Your task to perform on an android device: open device folders in google photos Image 0: 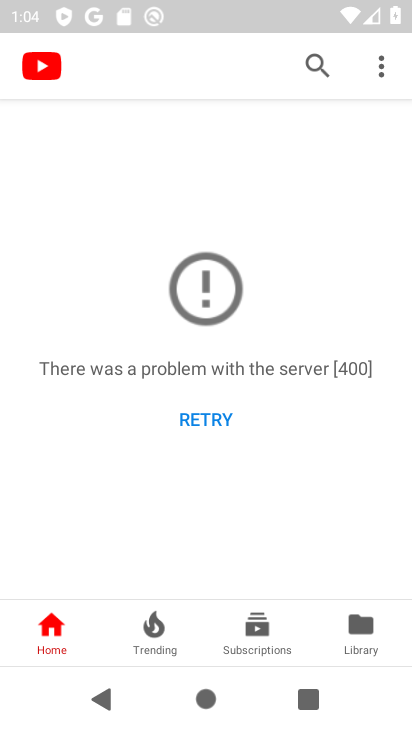
Step 0: press home button
Your task to perform on an android device: open device folders in google photos Image 1: 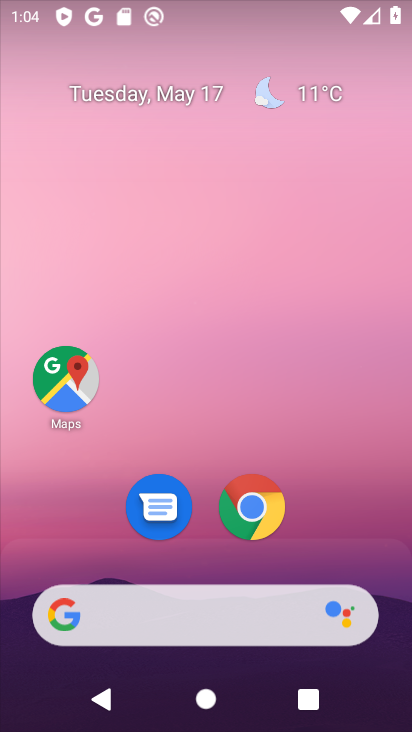
Step 1: drag from (203, 552) to (181, 113)
Your task to perform on an android device: open device folders in google photos Image 2: 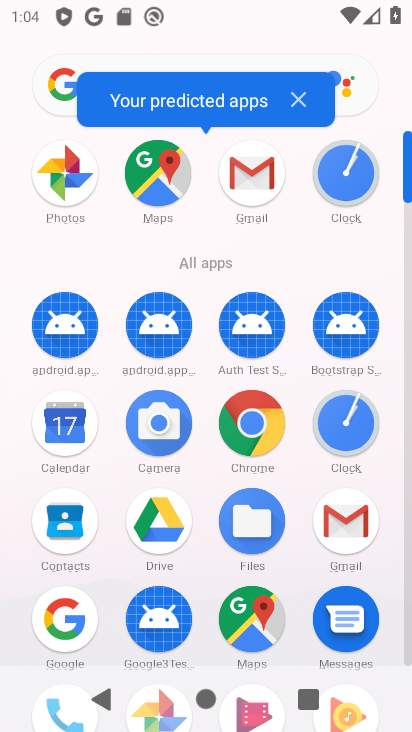
Step 2: drag from (107, 562) to (121, 295)
Your task to perform on an android device: open device folders in google photos Image 3: 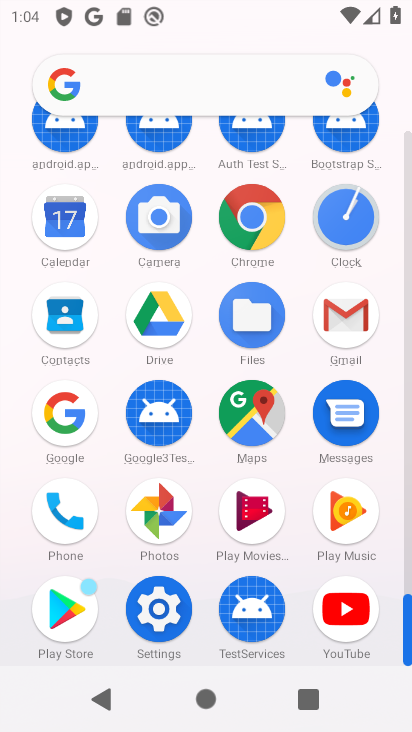
Step 3: click (158, 511)
Your task to perform on an android device: open device folders in google photos Image 4: 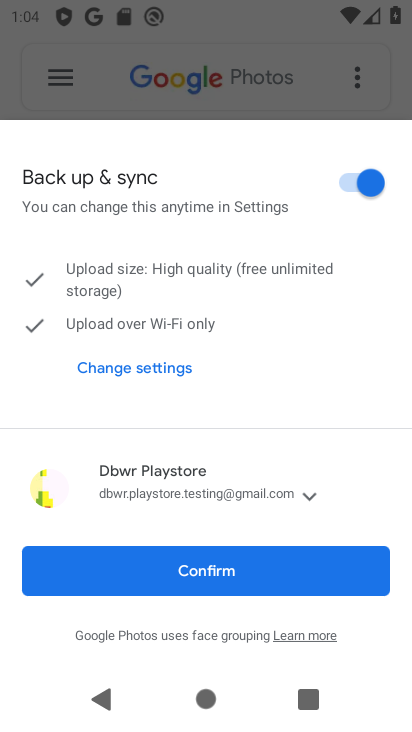
Step 4: click (224, 553)
Your task to perform on an android device: open device folders in google photos Image 5: 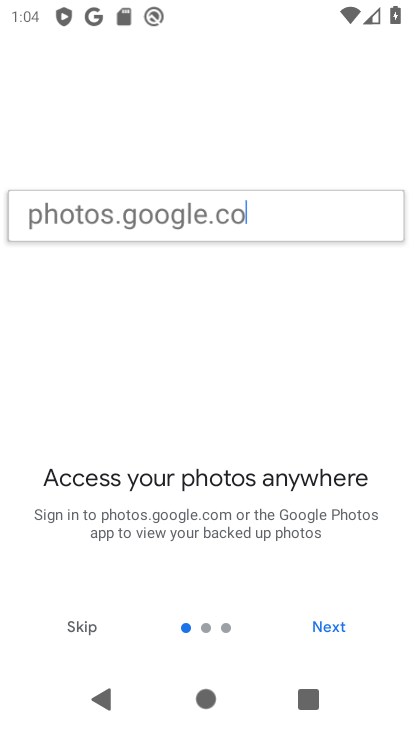
Step 5: click (320, 628)
Your task to perform on an android device: open device folders in google photos Image 6: 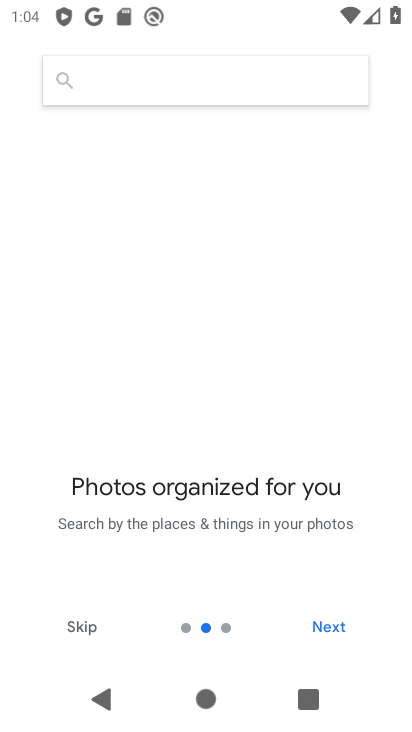
Step 6: click (320, 628)
Your task to perform on an android device: open device folders in google photos Image 7: 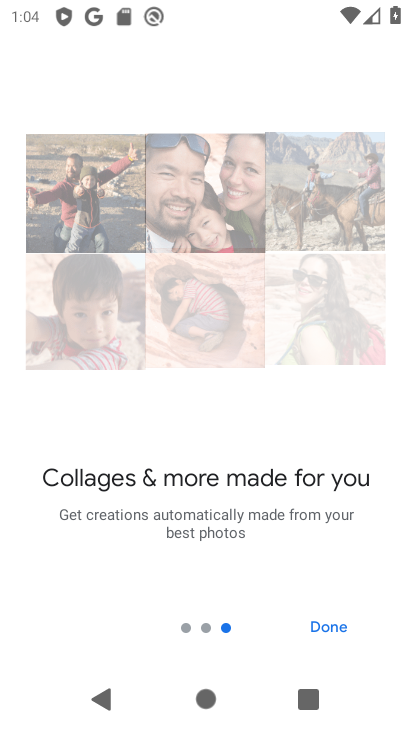
Step 7: click (320, 628)
Your task to perform on an android device: open device folders in google photos Image 8: 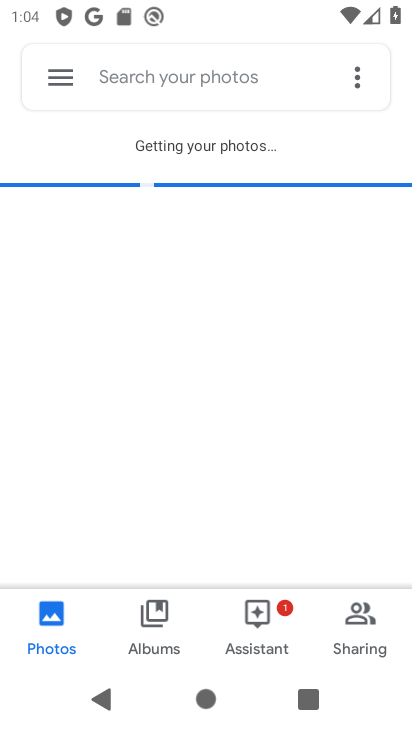
Step 8: drag from (320, 628) to (74, 72)
Your task to perform on an android device: open device folders in google photos Image 9: 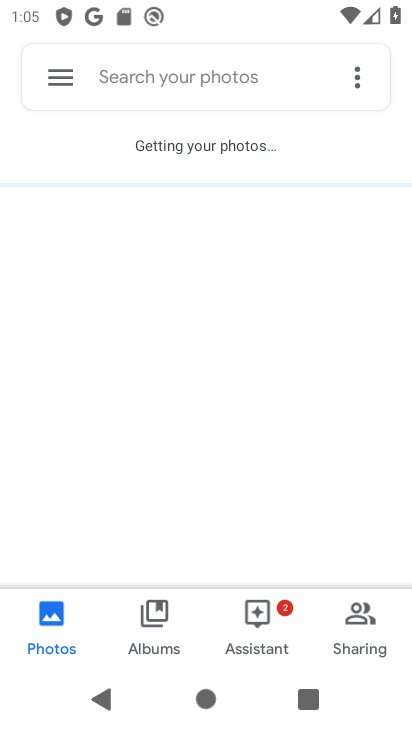
Step 9: click (60, 76)
Your task to perform on an android device: open device folders in google photos Image 10: 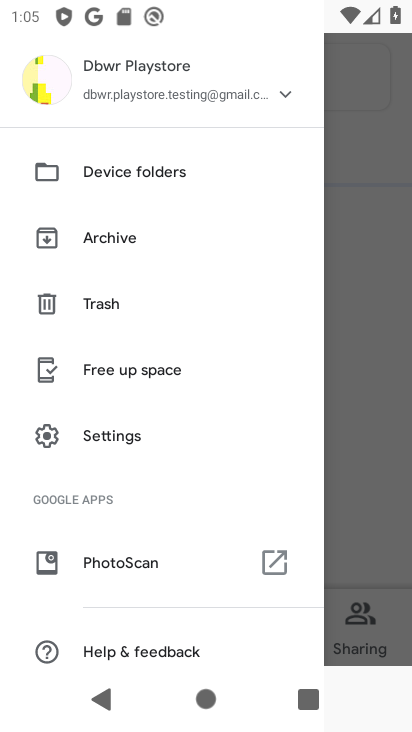
Step 10: click (121, 154)
Your task to perform on an android device: open device folders in google photos Image 11: 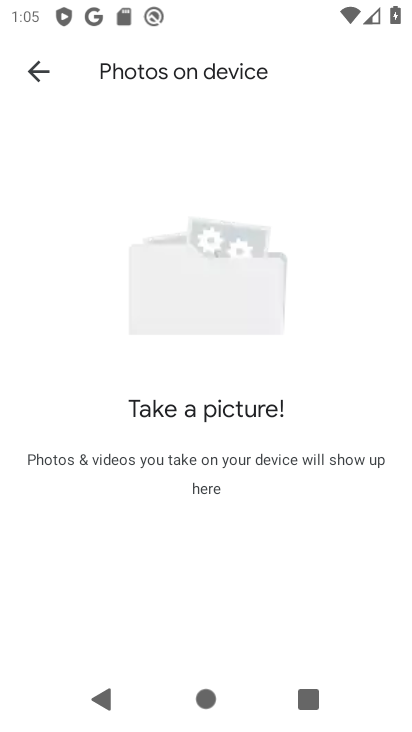
Step 11: task complete